Your task to perform on an android device: toggle improve location accuracy Image 0: 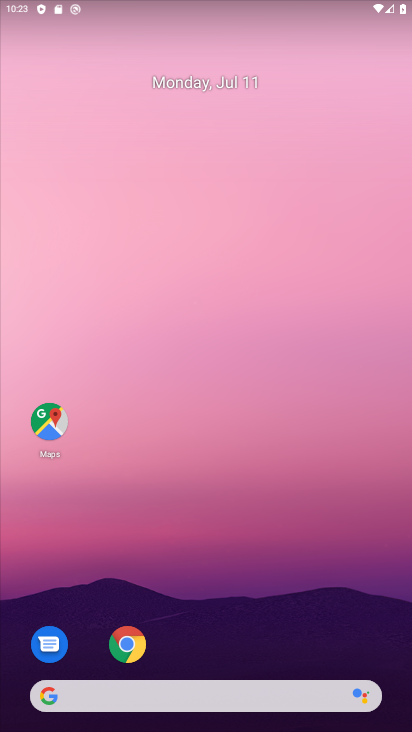
Step 0: drag from (207, 601) to (300, 2)
Your task to perform on an android device: toggle improve location accuracy Image 1: 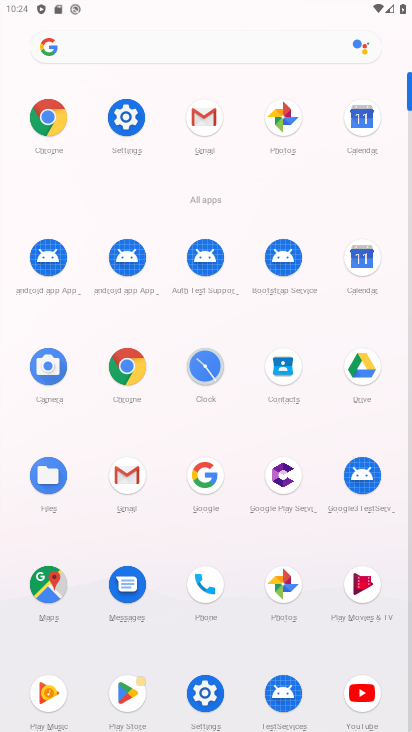
Step 1: click (210, 700)
Your task to perform on an android device: toggle improve location accuracy Image 2: 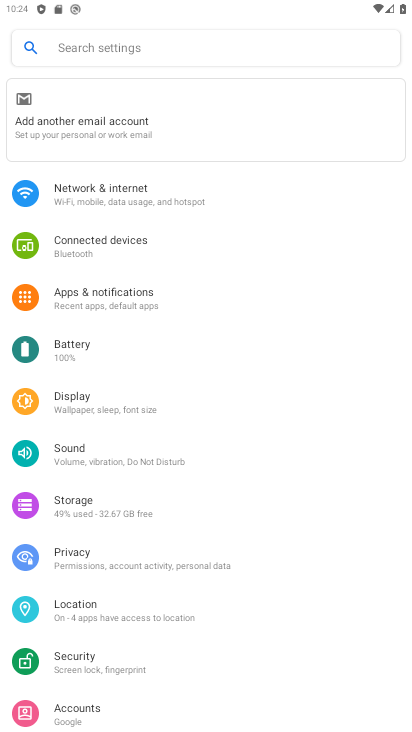
Step 2: click (106, 612)
Your task to perform on an android device: toggle improve location accuracy Image 3: 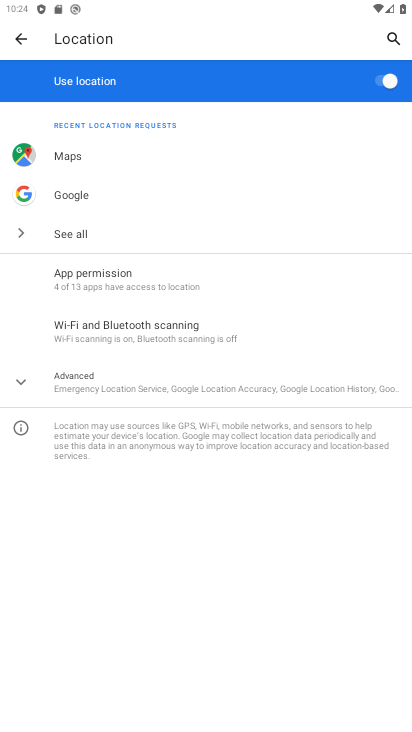
Step 3: click (162, 391)
Your task to perform on an android device: toggle improve location accuracy Image 4: 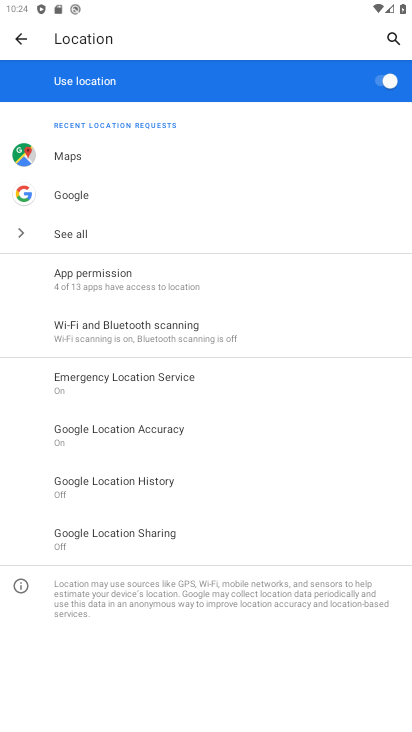
Step 4: click (180, 435)
Your task to perform on an android device: toggle improve location accuracy Image 5: 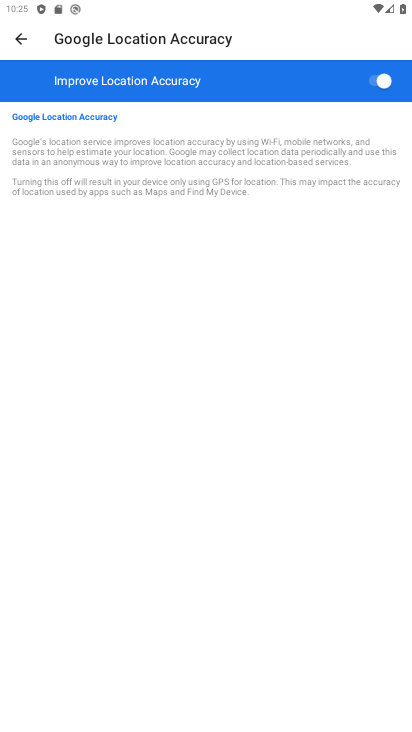
Step 5: click (362, 86)
Your task to perform on an android device: toggle improve location accuracy Image 6: 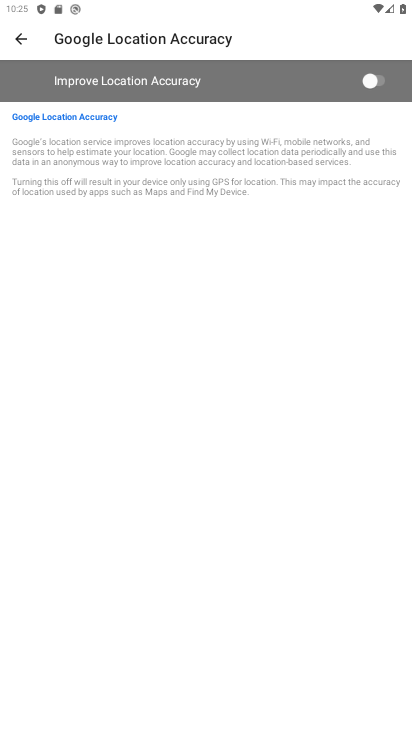
Step 6: task complete